Your task to perform on an android device: open app "Adobe Acrobat Reader: Edit PDF" (install if not already installed) and enter user name: "arthritis@inbox.com" and password: "scythes" Image 0: 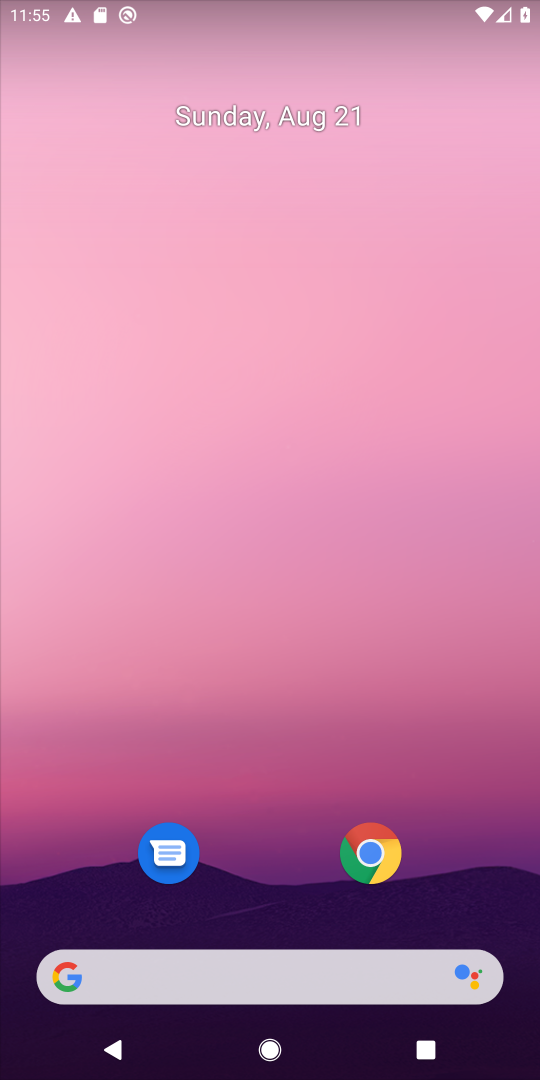
Step 0: drag from (188, 897) to (195, 295)
Your task to perform on an android device: open app "Adobe Acrobat Reader: Edit PDF" (install if not already installed) and enter user name: "arthritis@inbox.com" and password: "scythes" Image 1: 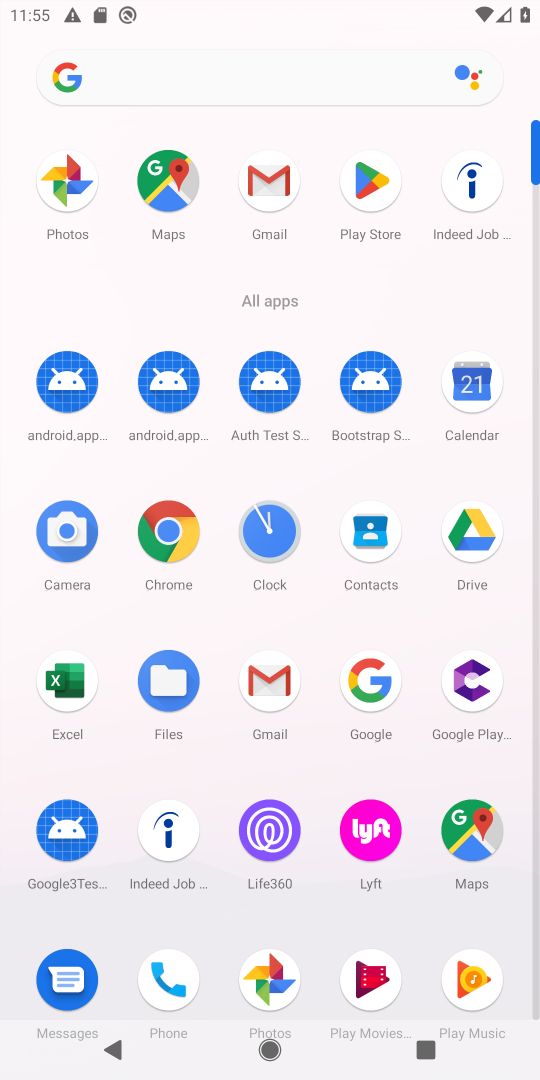
Step 1: click (377, 168)
Your task to perform on an android device: open app "Adobe Acrobat Reader: Edit PDF" (install if not already installed) and enter user name: "arthritis@inbox.com" and password: "scythes" Image 2: 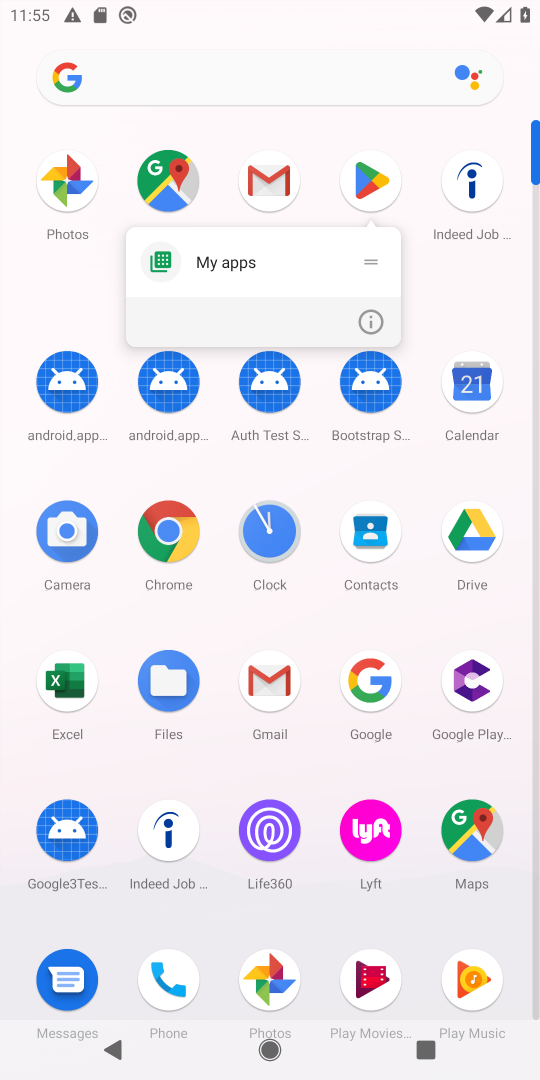
Step 2: click (377, 168)
Your task to perform on an android device: open app "Adobe Acrobat Reader: Edit PDF" (install if not already installed) and enter user name: "arthritis@inbox.com" and password: "scythes" Image 3: 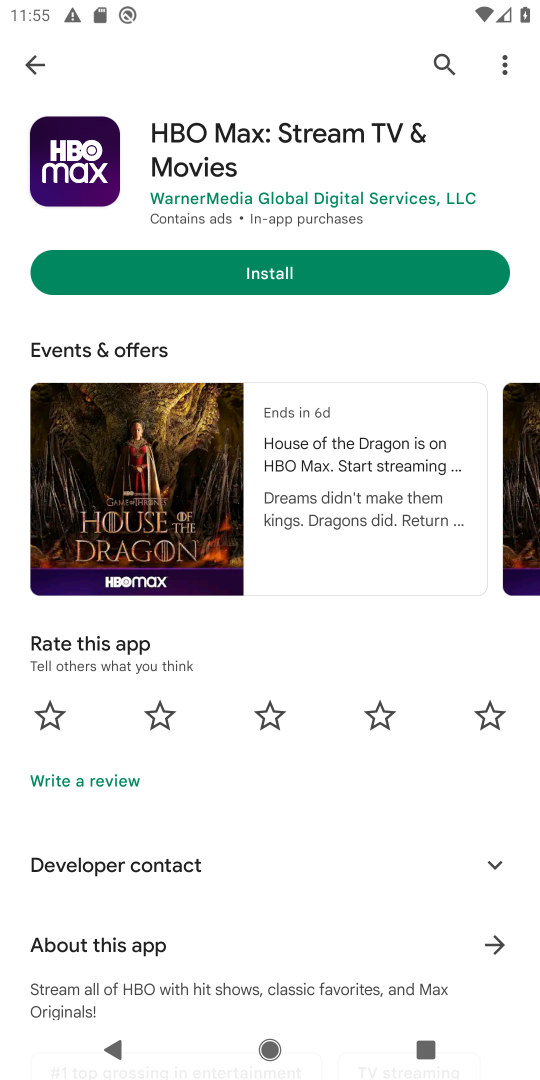
Step 3: click (23, 66)
Your task to perform on an android device: open app "Adobe Acrobat Reader: Edit PDF" (install if not already installed) and enter user name: "arthritis@inbox.com" and password: "scythes" Image 4: 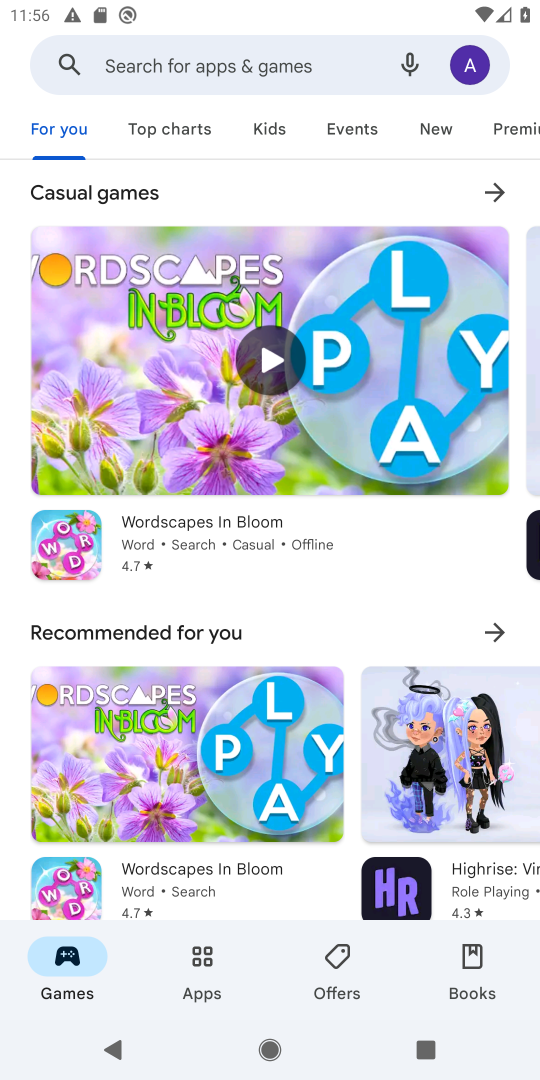
Step 4: click (186, 41)
Your task to perform on an android device: open app "Adobe Acrobat Reader: Edit PDF" (install if not already installed) and enter user name: "arthritis@inbox.com" and password: "scythes" Image 5: 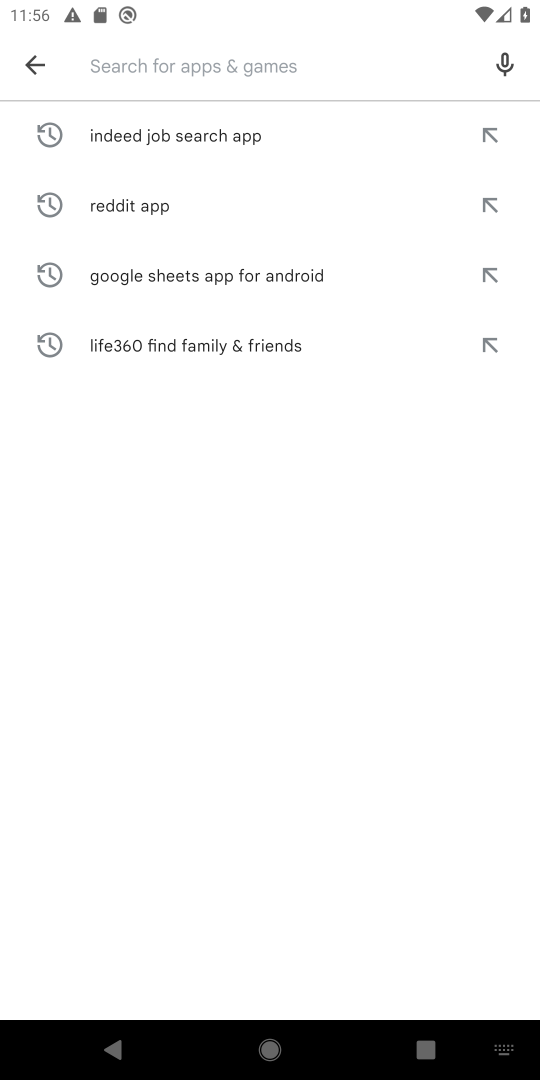
Step 5: type "Adobe Acrobat Reader: Edit PDF "
Your task to perform on an android device: open app "Adobe Acrobat Reader: Edit PDF" (install if not already installed) and enter user name: "arthritis@inbox.com" and password: "scythes" Image 6: 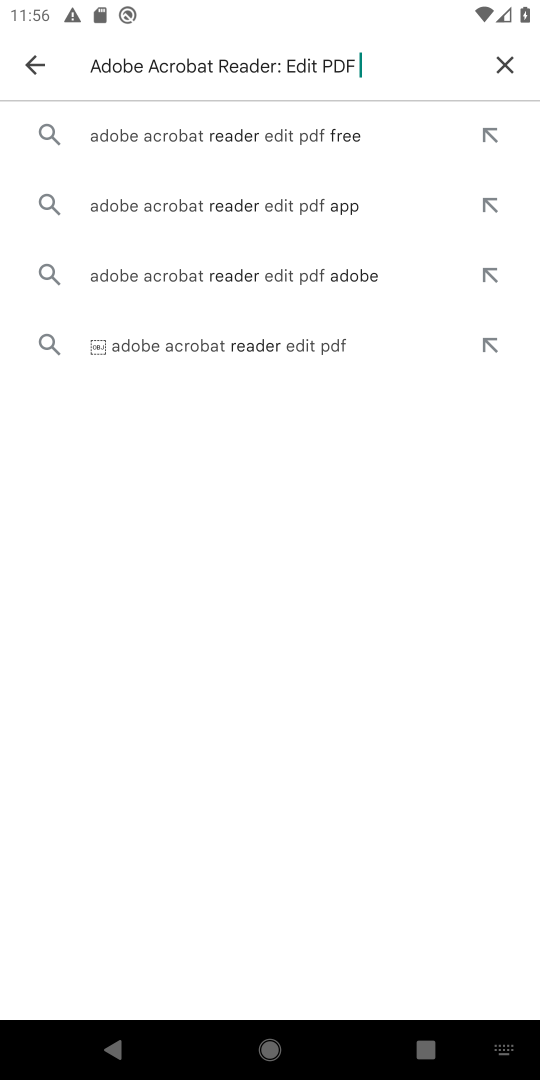
Step 6: click (191, 122)
Your task to perform on an android device: open app "Adobe Acrobat Reader: Edit PDF" (install if not already installed) and enter user name: "arthritis@inbox.com" and password: "scythes" Image 7: 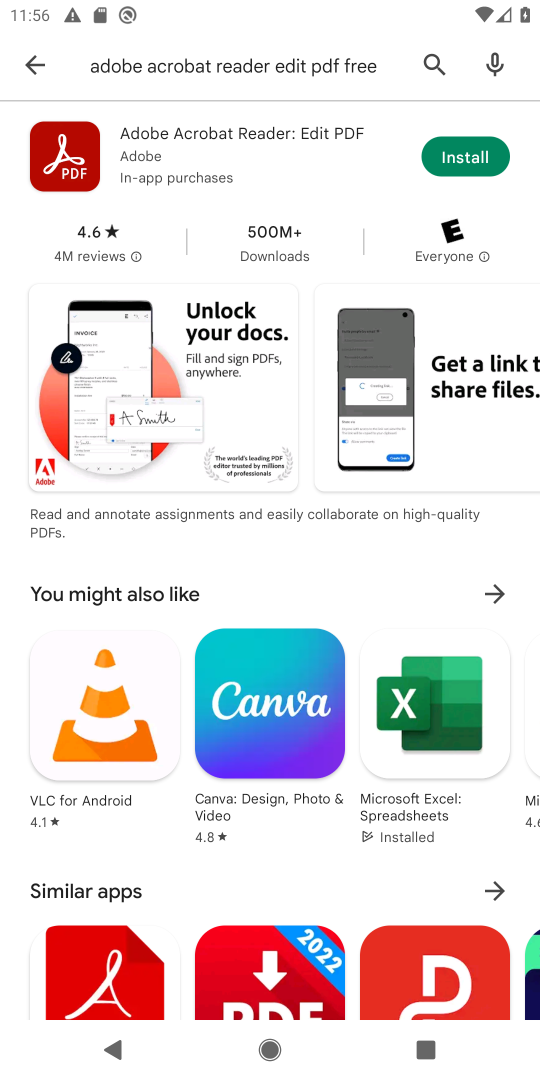
Step 7: click (451, 164)
Your task to perform on an android device: open app "Adobe Acrobat Reader: Edit PDF" (install if not already installed) and enter user name: "arthritis@inbox.com" and password: "scythes" Image 8: 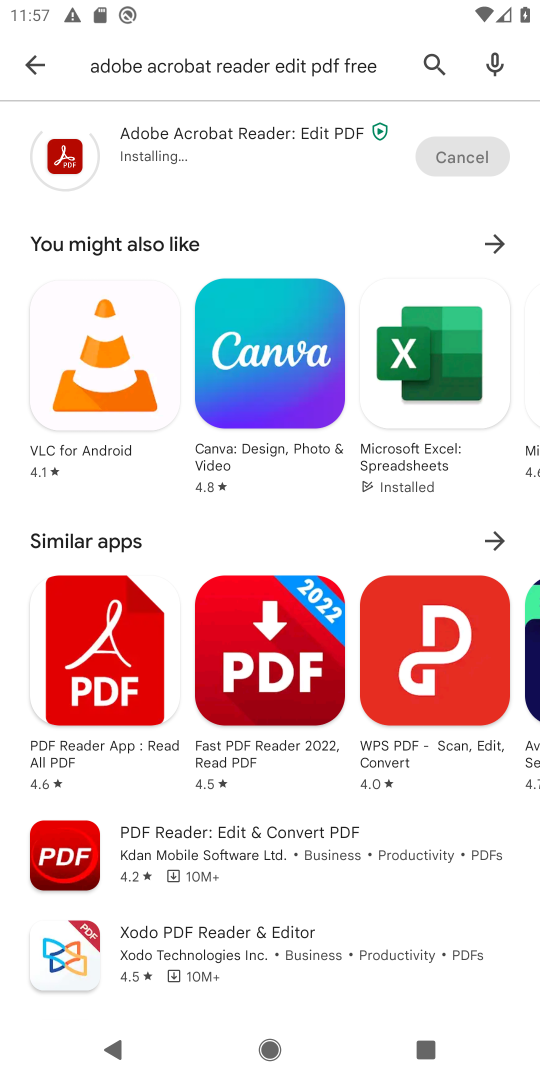
Step 8: task complete